Your task to perform on an android device: check battery use Image 0: 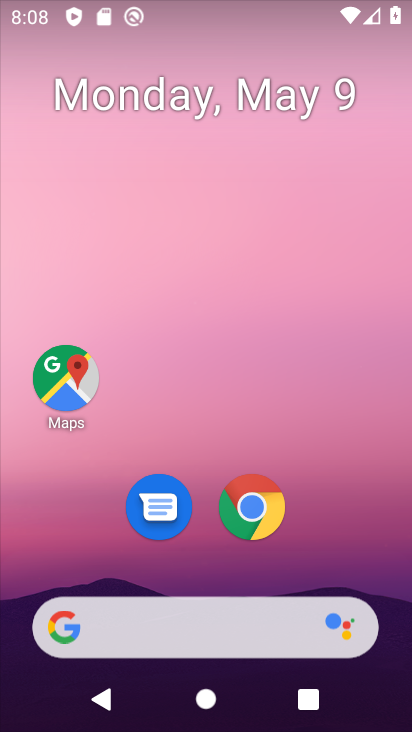
Step 0: drag from (204, 602) to (169, 37)
Your task to perform on an android device: check battery use Image 1: 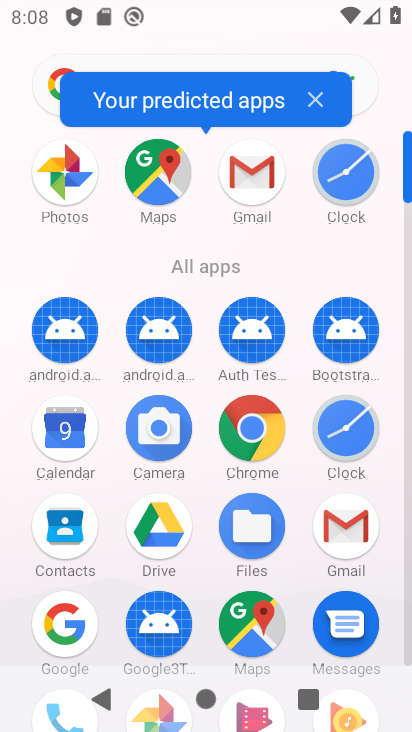
Step 1: drag from (209, 586) to (168, 8)
Your task to perform on an android device: check battery use Image 2: 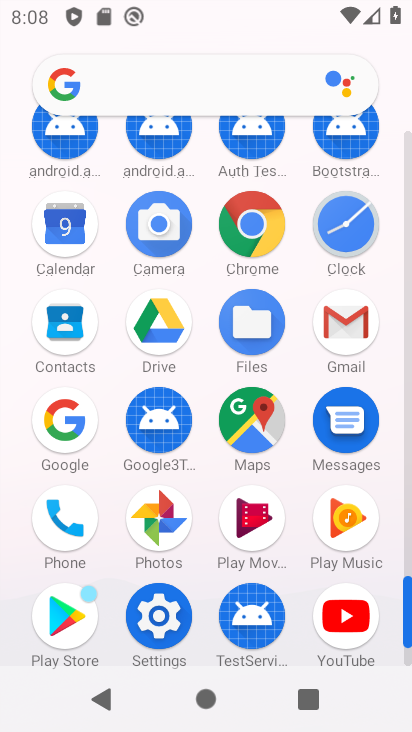
Step 2: click (163, 615)
Your task to perform on an android device: check battery use Image 3: 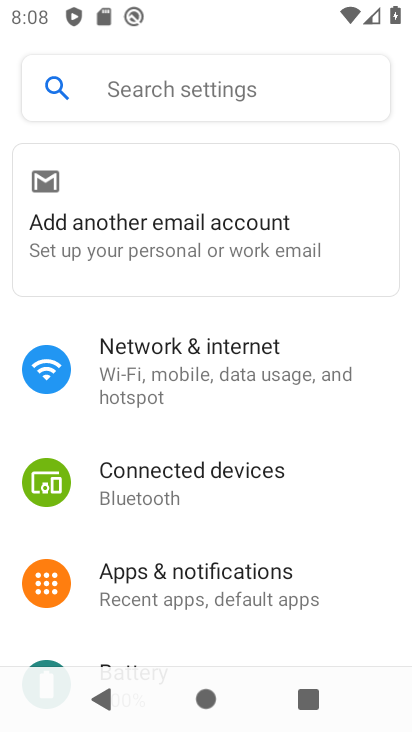
Step 3: drag from (177, 568) to (122, 154)
Your task to perform on an android device: check battery use Image 4: 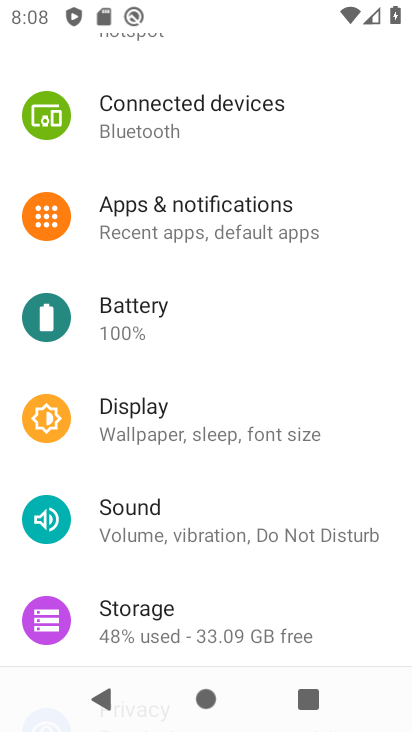
Step 4: click (126, 321)
Your task to perform on an android device: check battery use Image 5: 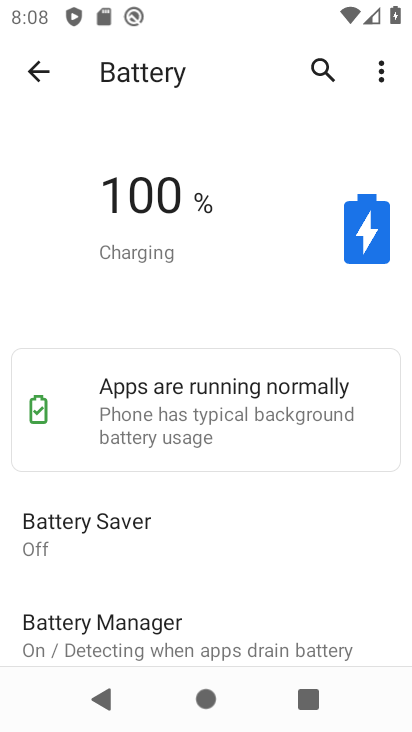
Step 5: click (372, 76)
Your task to perform on an android device: check battery use Image 6: 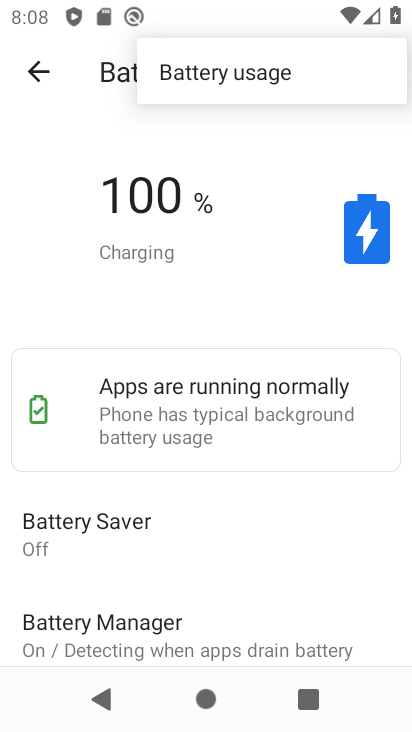
Step 6: click (294, 72)
Your task to perform on an android device: check battery use Image 7: 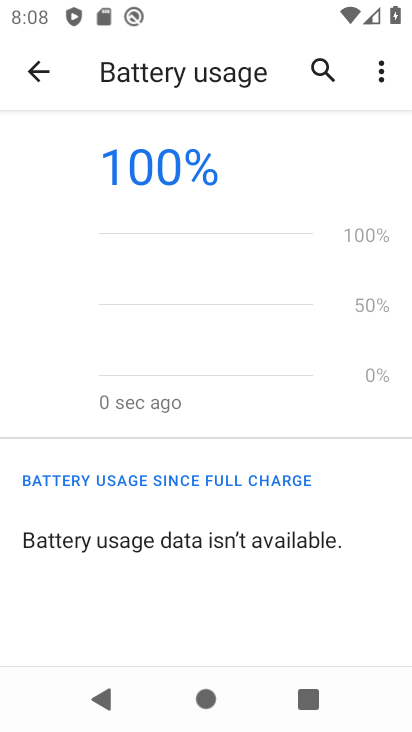
Step 7: task complete